Your task to perform on an android device: open app "Life360: Find Family & Friends" (install if not already installed) and enter user name: "gusts@gmail.com" and password: "assurers" Image 0: 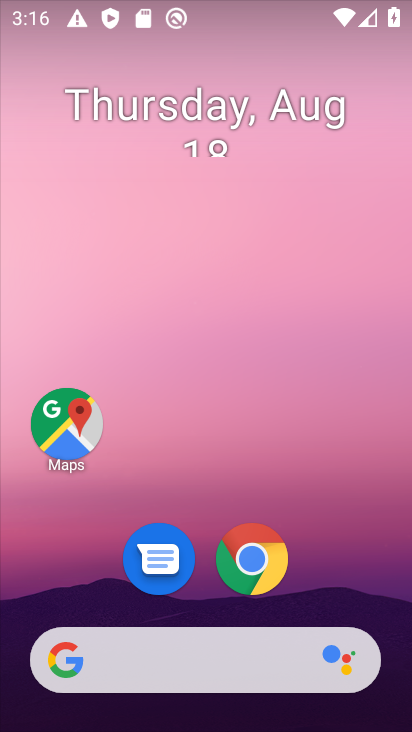
Step 0: drag from (304, 624) to (175, 14)
Your task to perform on an android device: open app "Life360: Find Family & Friends" (install if not already installed) and enter user name: "gusts@gmail.com" and password: "assurers" Image 1: 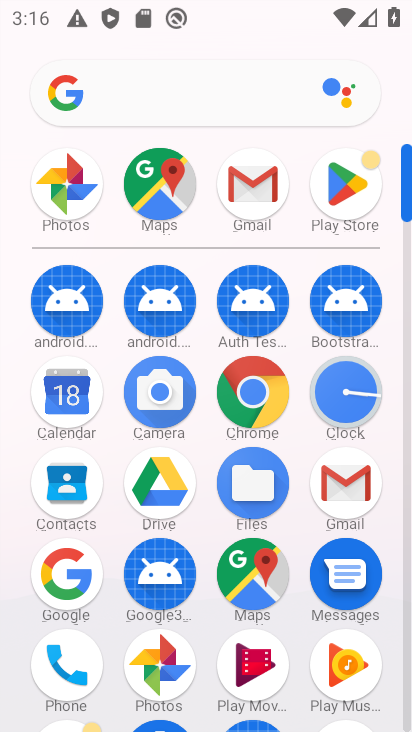
Step 1: click (338, 204)
Your task to perform on an android device: open app "Life360: Find Family & Friends" (install if not already installed) and enter user name: "gusts@gmail.com" and password: "assurers" Image 2: 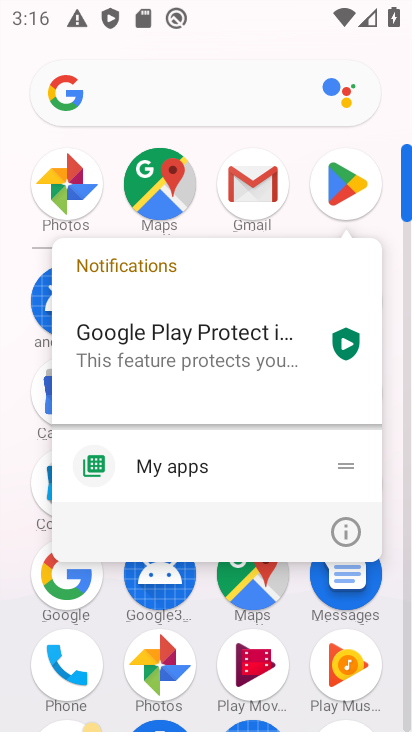
Step 2: click (346, 181)
Your task to perform on an android device: open app "Life360: Find Family & Friends" (install if not already installed) and enter user name: "gusts@gmail.com" and password: "assurers" Image 3: 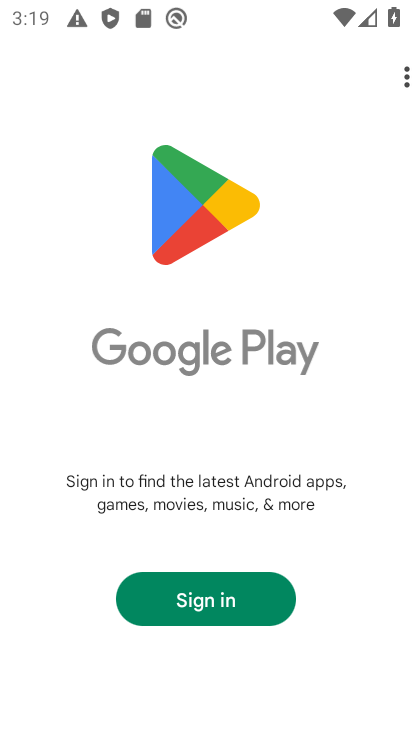
Step 3: click (195, 607)
Your task to perform on an android device: open app "Life360: Find Family & Friends" (install if not already installed) and enter user name: "gusts@gmail.com" and password: "assurers" Image 4: 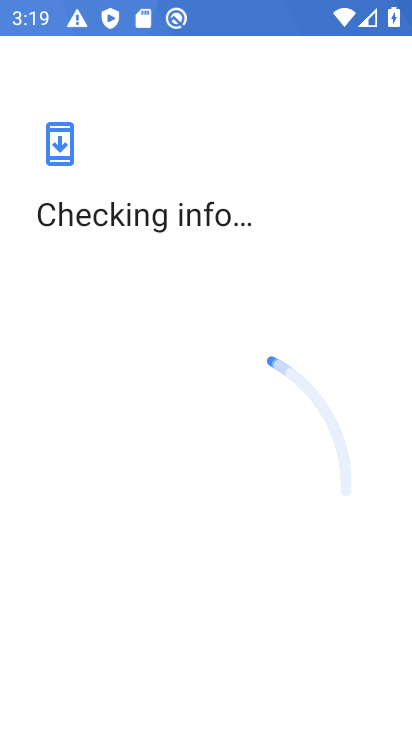
Step 4: task complete